Your task to perform on an android device: Go to location settings Image 0: 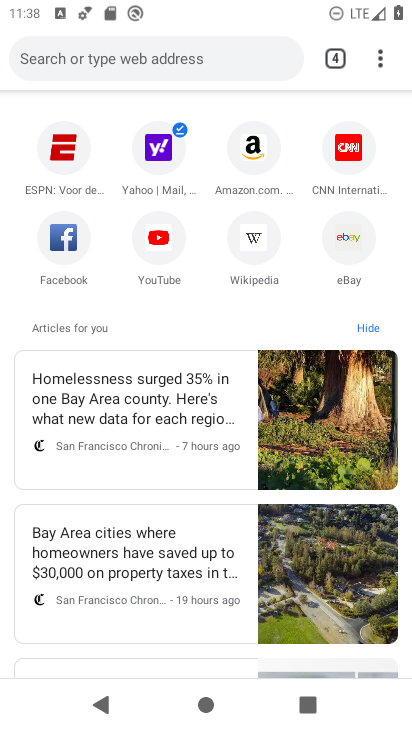
Step 0: press home button
Your task to perform on an android device: Go to location settings Image 1: 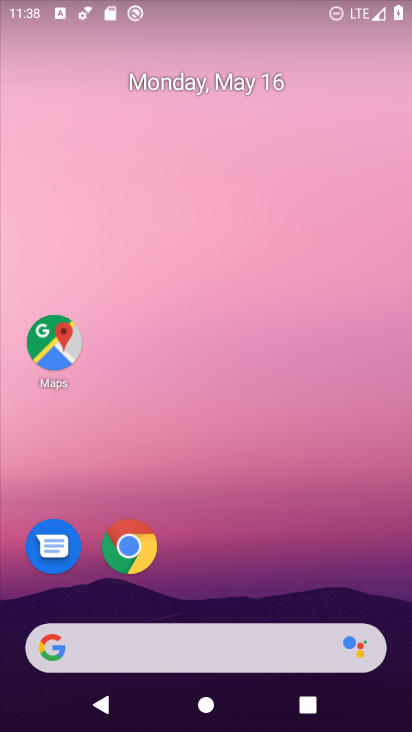
Step 1: drag from (173, 593) to (170, 102)
Your task to perform on an android device: Go to location settings Image 2: 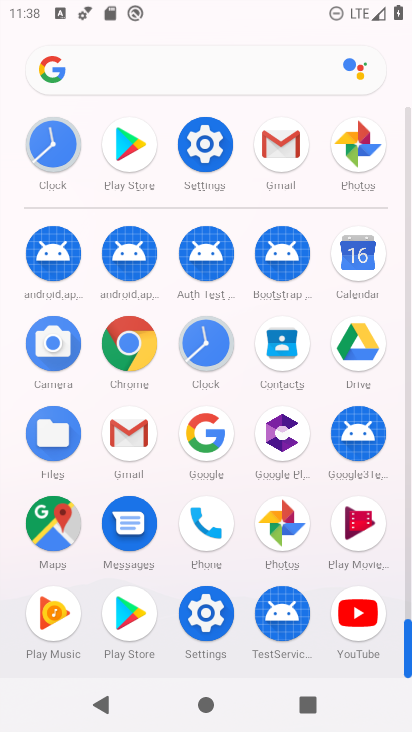
Step 2: click (210, 159)
Your task to perform on an android device: Go to location settings Image 3: 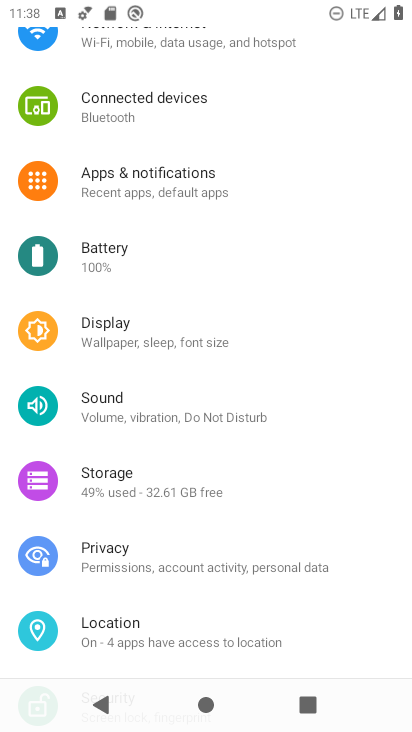
Step 3: click (87, 630)
Your task to perform on an android device: Go to location settings Image 4: 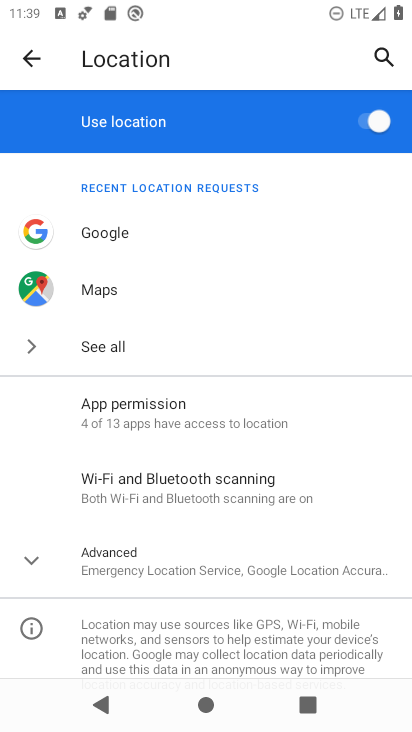
Step 4: task complete